Your task to perform on an android device: Open network settings Image 0: 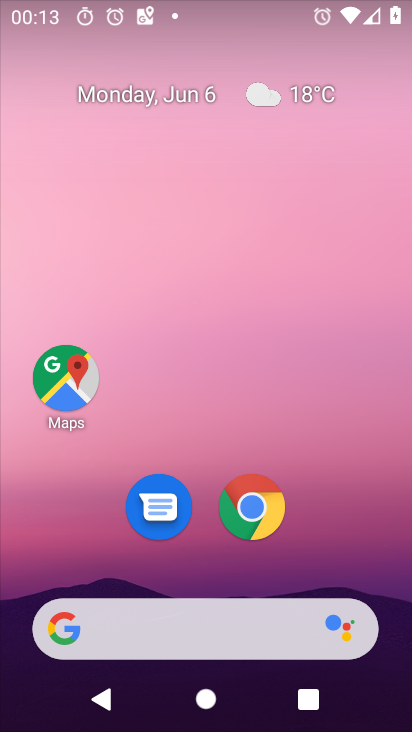
Step 0: drag from (225, 731) to (219, 2)
Your task to perform on an android device: Open network settings Image 1: 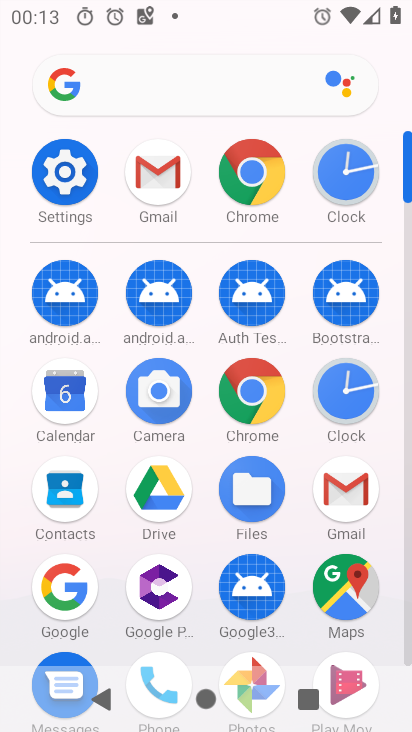
Step 1: click (71, 174)
Your task to perform on an android device: Open network settings Image 2: 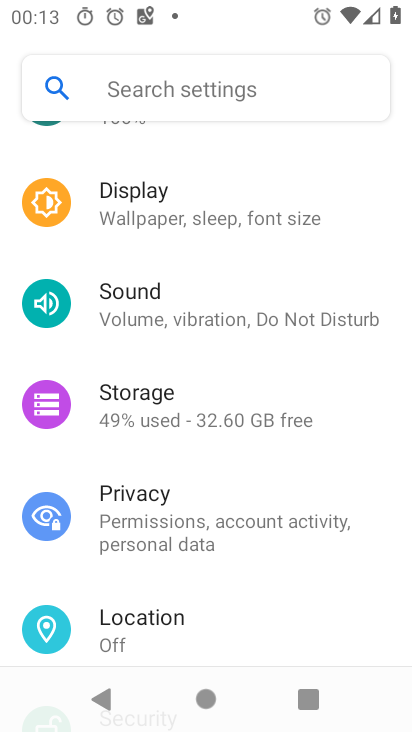
Step 2: drag from (276, 169) to (260, 616)
Your task to perform on an android device: Open network settings Image 3: 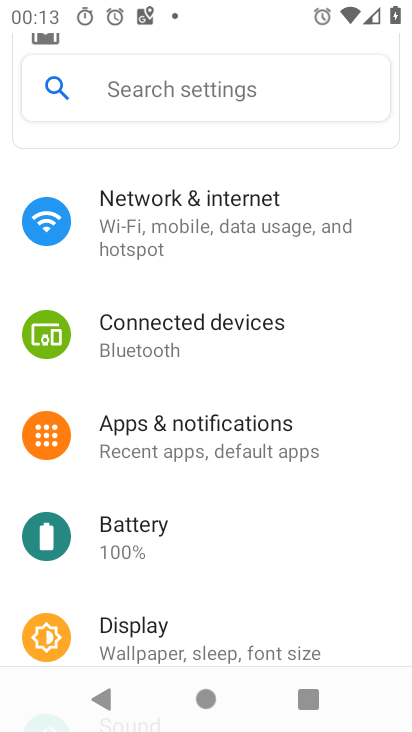
Step 3: click (182, 218)
Your task to perform on an android device: Open network settings Image 4: 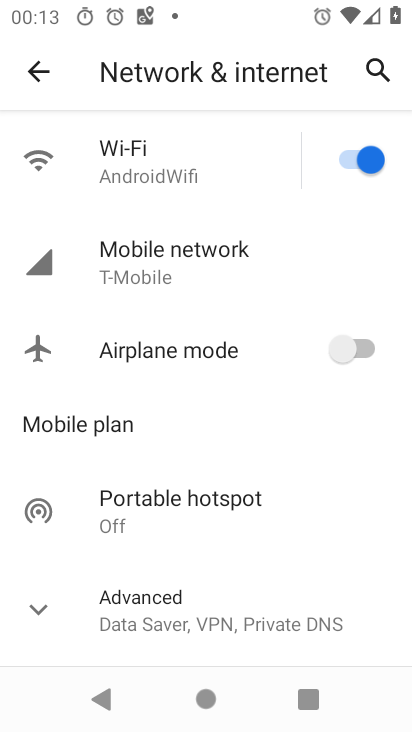
Step 4: click (152, 267)
Your task to perform on an android device: Open network settings Image 5: 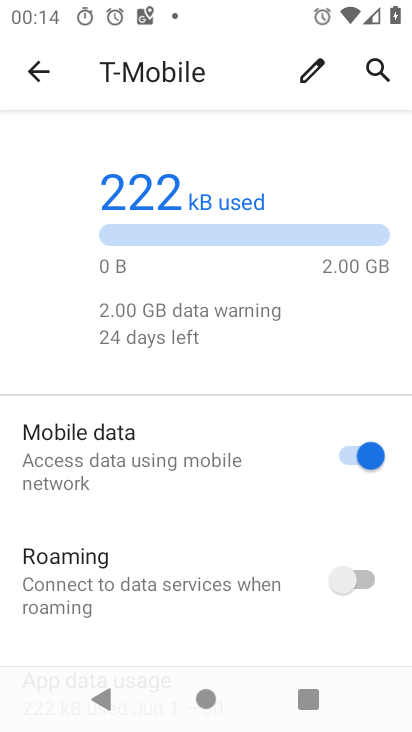
Step 5: task complete